Your task to perform on an android device: find snoozed emails in the gmail app Image 0: 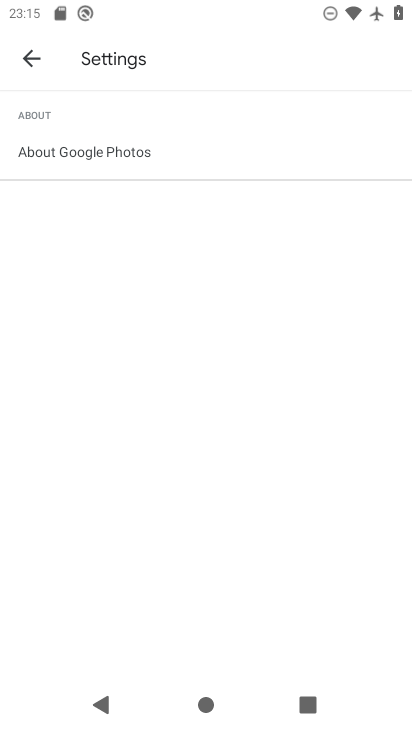
Step 0: drag from (322, 456) to (287, 35)
Your task to perform on an android device: find snoozed emails in the gmail app Image 1: 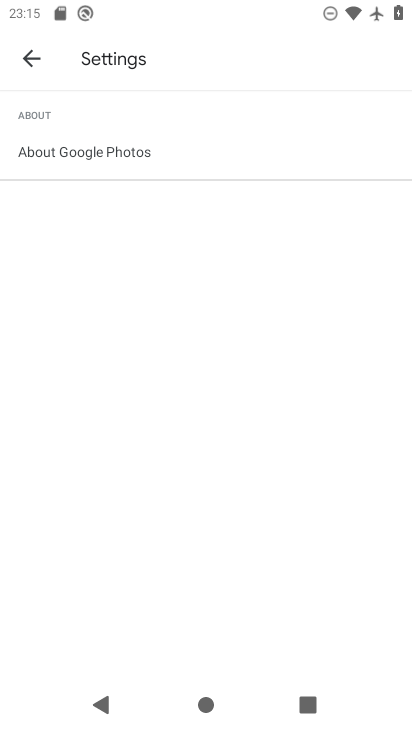
Step 1: press home button
Your task to perform on an android device: find snoozed emails in the gmail app Image 2: 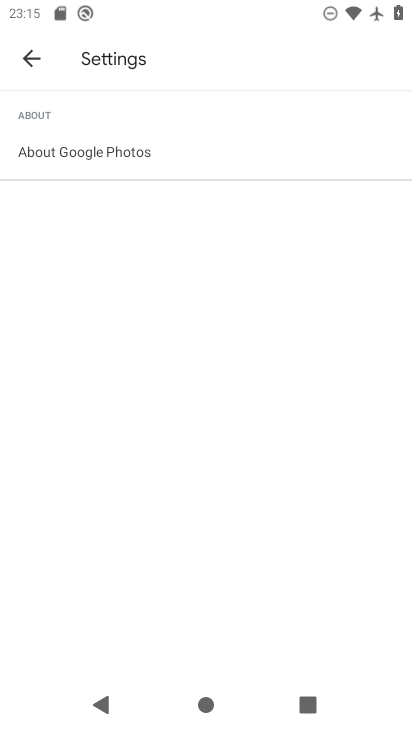
Step 2: drag from (216, 538) to (351, 4)
Your task to perform on an android device: find snoozed emails in the gmail app Image 3: 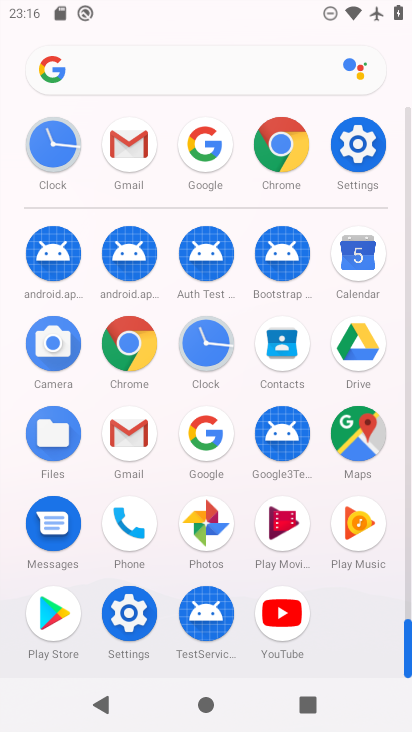
Step 3: click (117, 435)
Your task to perform on an android device: find snoozed emails in the gmail app Image 4: 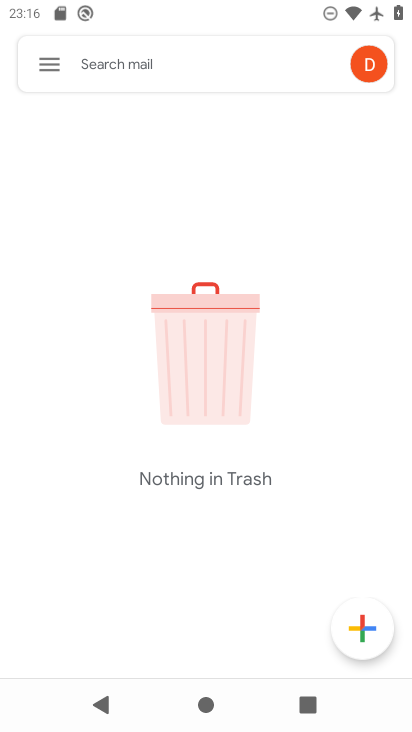
Step 4: drag from (138, 585) to (223, 199)
Your task to perform on an android device: find snoozed emails in the gmail app Image 5: 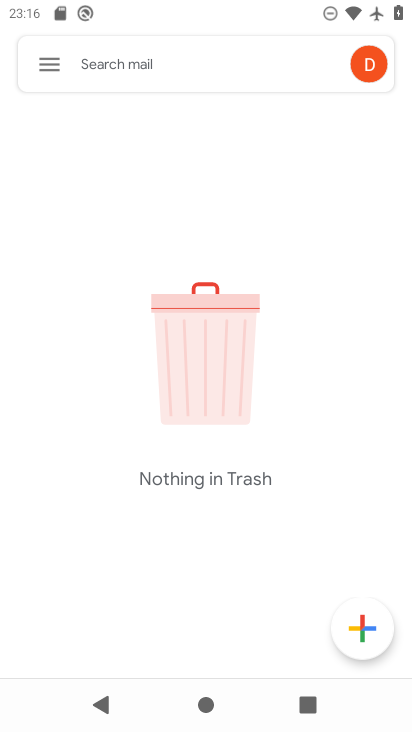
Step 5: click (52, 70)
Your task to perform on an android device: find snoozed emails in the gmail app Image 6: 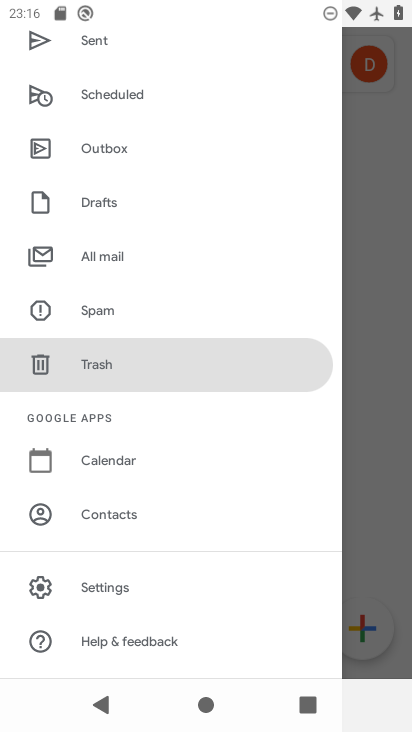
Step 6: drag from (142, 122) to (176, 635)
Your task to perform on an android device: find snoozed emails in the gmail app Image 7: 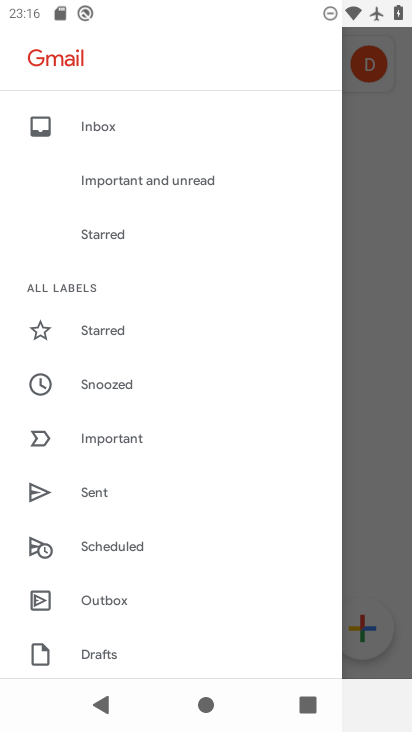
Step 7: click (135, 382)
Your task to perform on an android device: find snoozed emails in the gmail app Image 8: 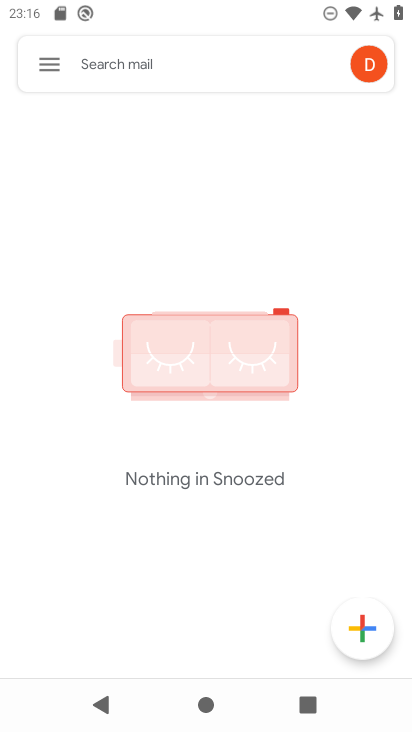
Step 8: task complete